Your task to perform on an android device: delete the emails in spam in the gmail app Image 0: 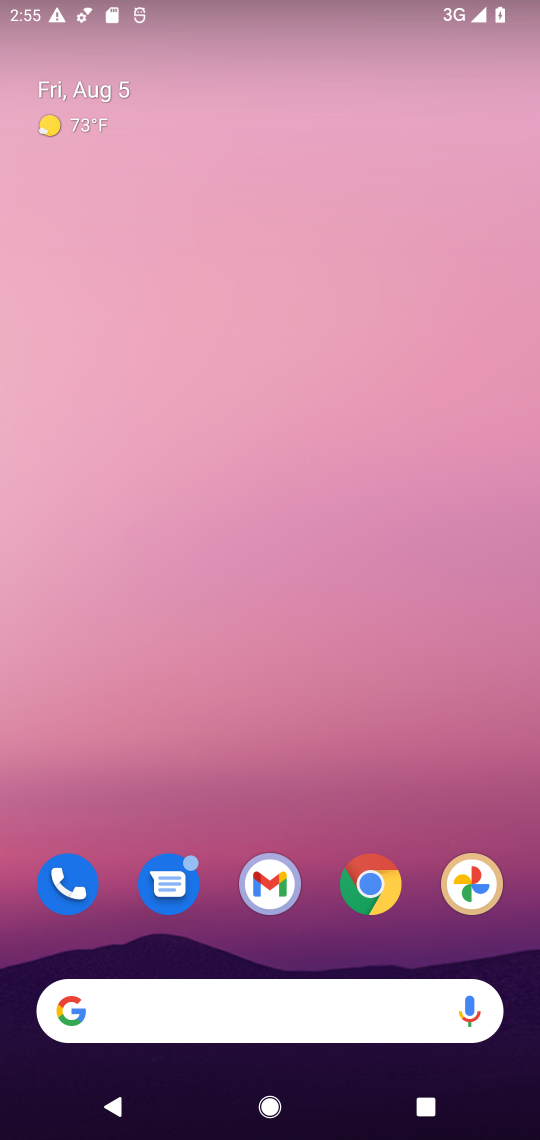
Step 0: drag from (411, 830) to (205, 26)
Your task to perform on an android device: delete the emails in spam in the gmail app Image 1: 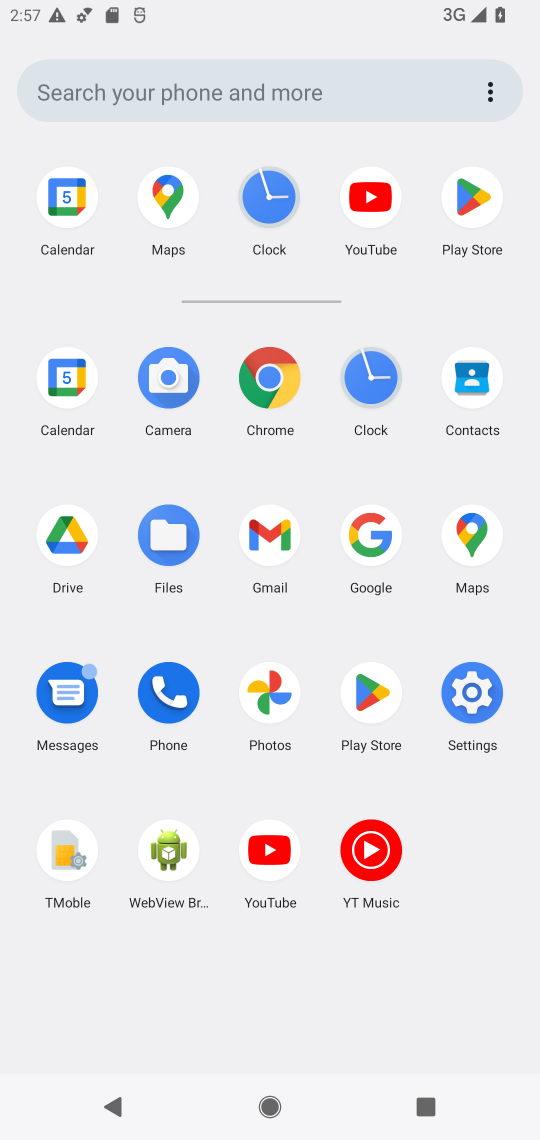
Step 1: click (282, 535)
Your task to perform on an android device: delete the emails in spam in the gmail app Image 2: 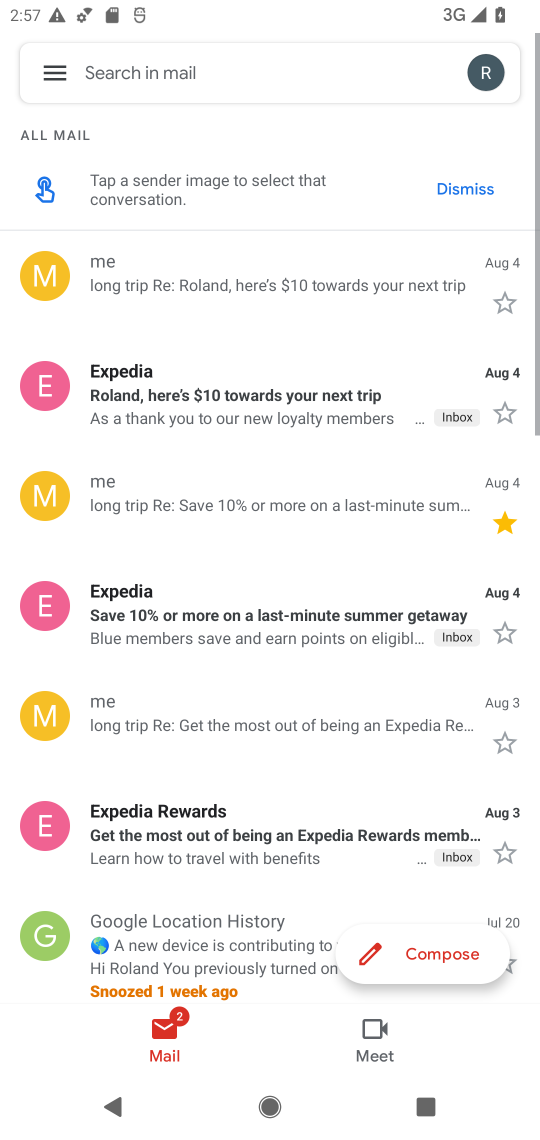
Step 2: task complete